Your task to perform on an android device: Open Wikipedia Image 0: 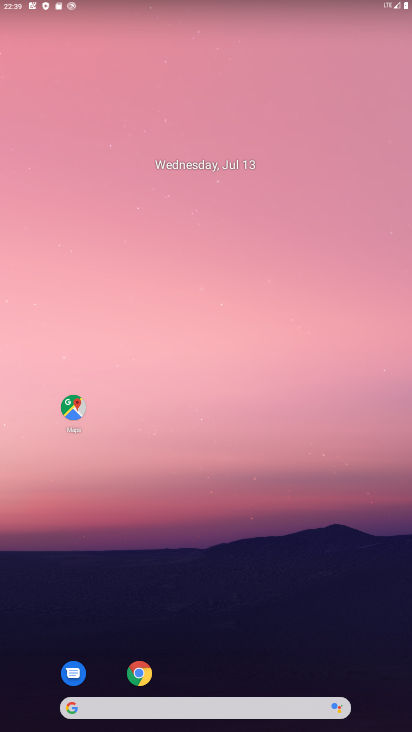
Step 0: drag from (192, 583) to (218, 165)
Your task to perform on an android device: Open Wikipedia Image 1: 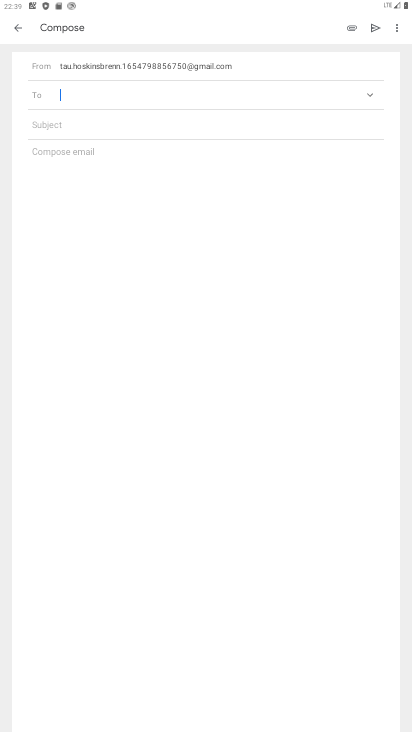
Step 1: press home button
Your task to perform on an android device: Open Wikipedia Image 2: 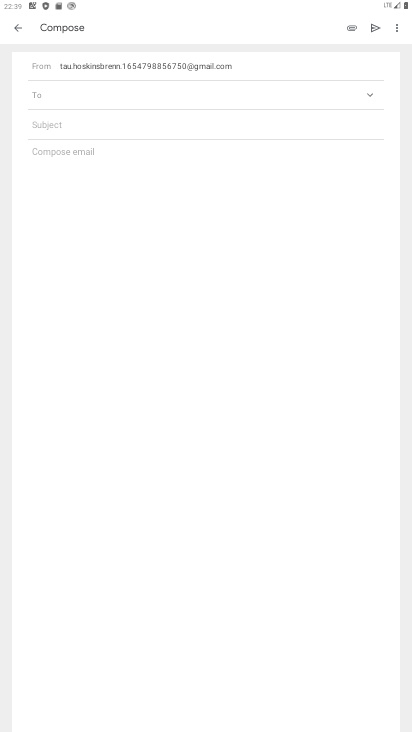
Step 2: press home button
Your task to perform on an android device: Open Wikipedia Image 3: 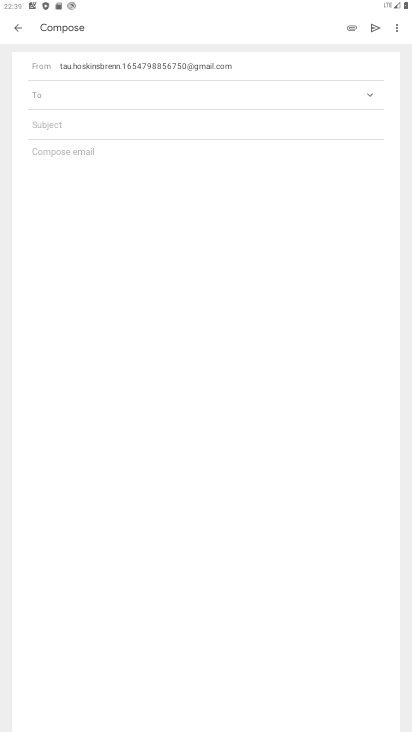
Step 3: drag from (206, 488) to (289, 97)
Your task to perform on an android device: Open Wikipedia Image 4: 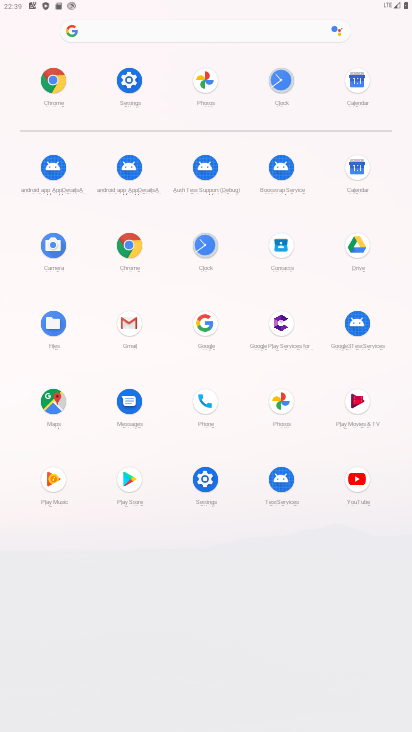
Step 4: click (195, 30)
Your task to perform on an android device: Open Wikipedia Image 5: 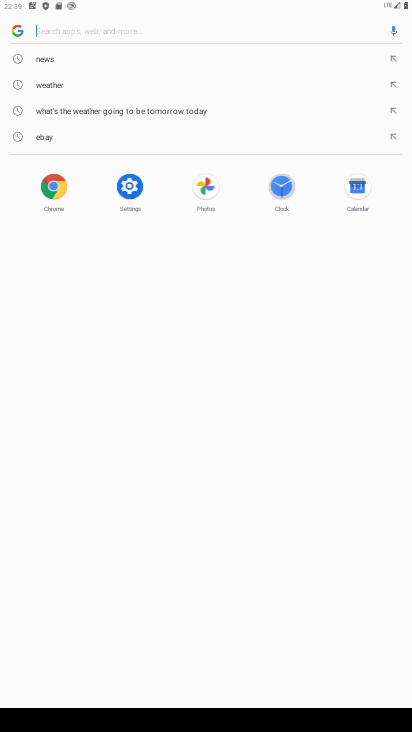
Step 5: type "wikipedia"
Your task to perform on an android device: Open Wikipedia Image 6: 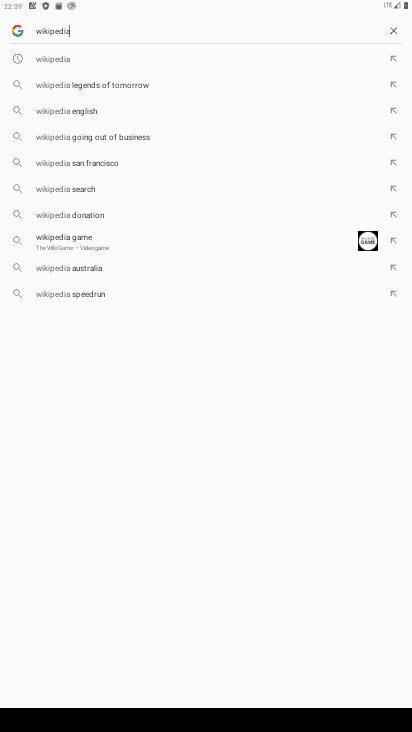
Step 6: click (74, 58)
Your task to perform on an android device: Open Wikipedia Image 7: 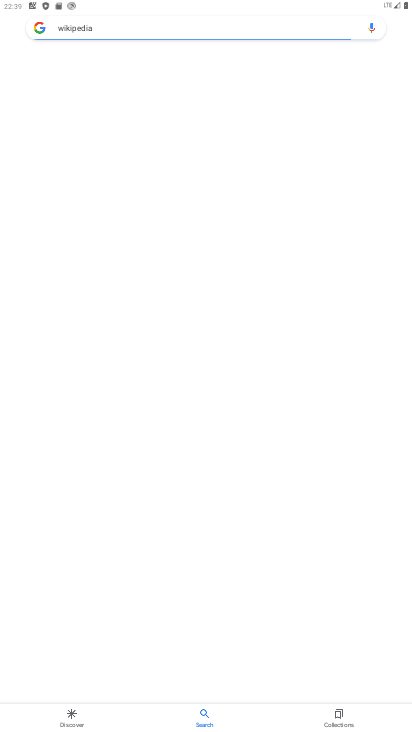
Step 7: drag from (201, 537) to (214, 144)
Your task to perform on an android device: Open Wikipedia Image 8: 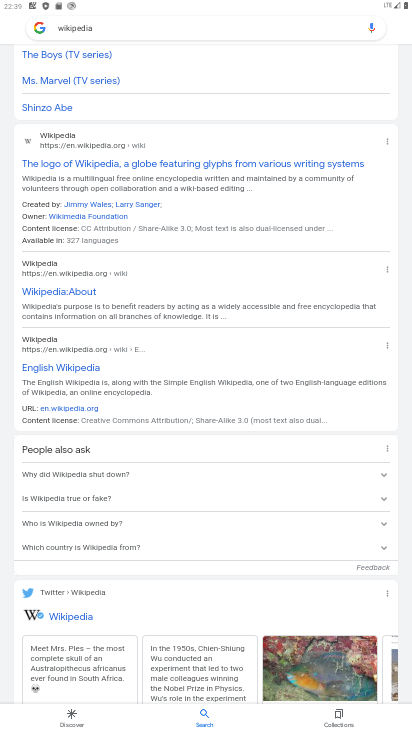
Step 8: drag from (229, 314) to (231, 269)
Your task to perform on an android device: Open Wikipedia Image 9: 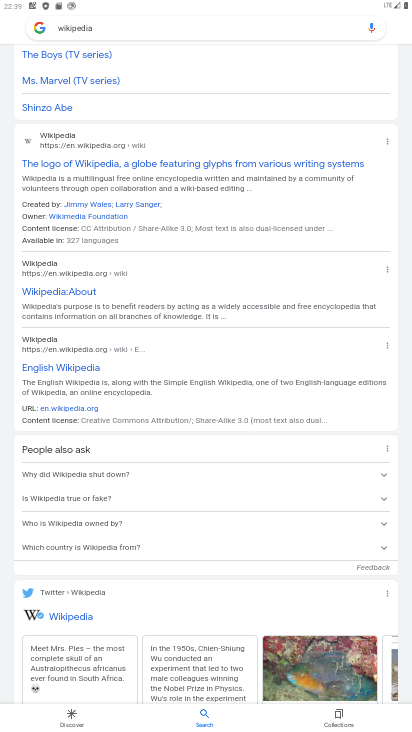
Step 9: drag from (233, 139) to (244, 696)
Your task to perform on an android device: Open Wikipedia Image 10: 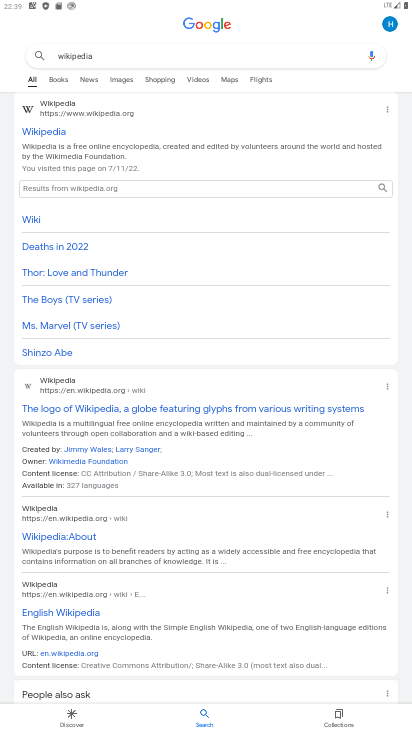
Step 10: drag from (210, 231) to (256, 683)
Your task to perform on an android device: Open Wikipedia Image 11: 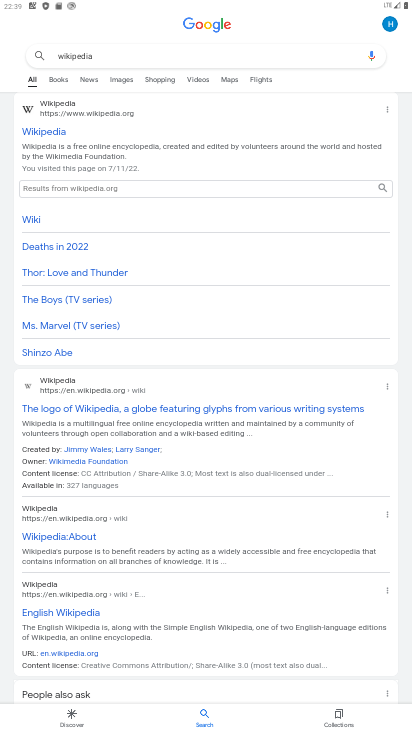
Step 11: click (48, 128)
Your task to perform on an android device: Open Wikipedia Image 12: 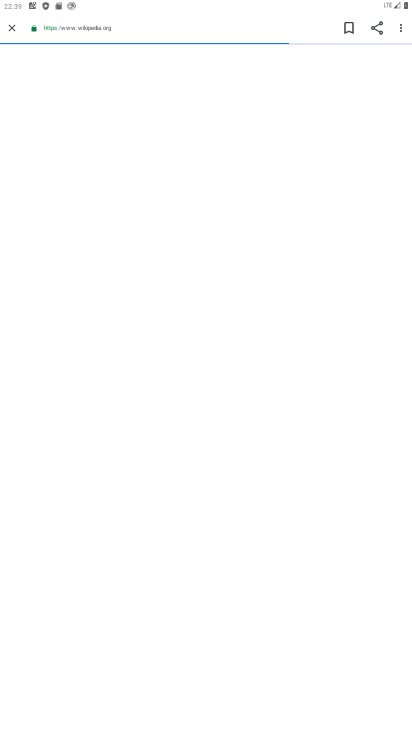
Step 12: task complete